Your task to perform on an android device: move a message to another label in the gmail app Image 0: 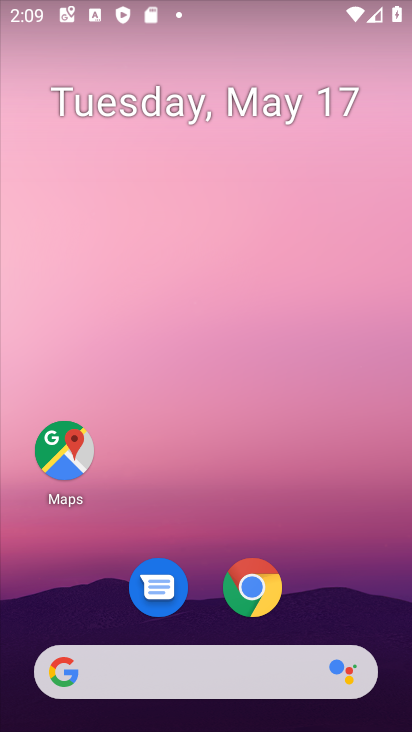
Step 0: drag from (112, 605) to (186, 85)
Your task to perform on an android device: move a message to another label in the gmail app Image 1: 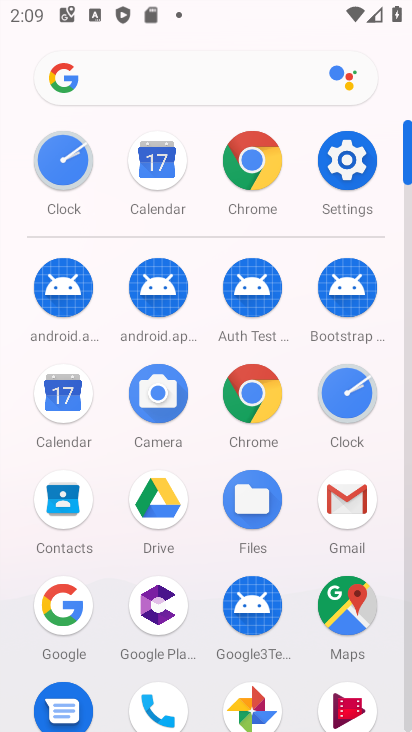
Step 1: click (337, 502)
Your task to perform on an android device: move a message to another label in the gmail app Image 2: 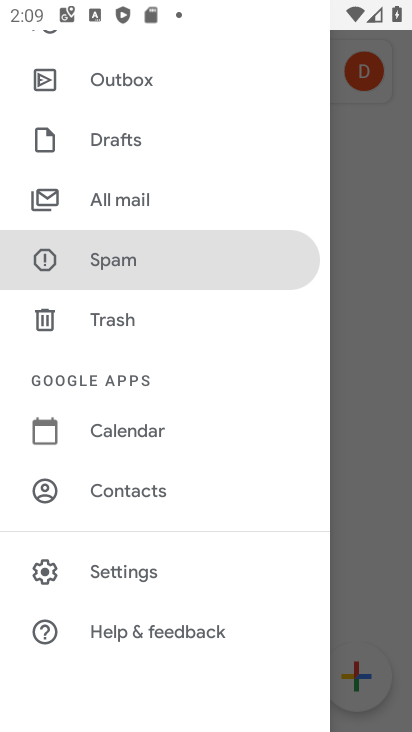
Step 2: drag from (176, 547) to (169, 95)
Your task to perform on an android device: move a message to another label in the gmail app Image 3: 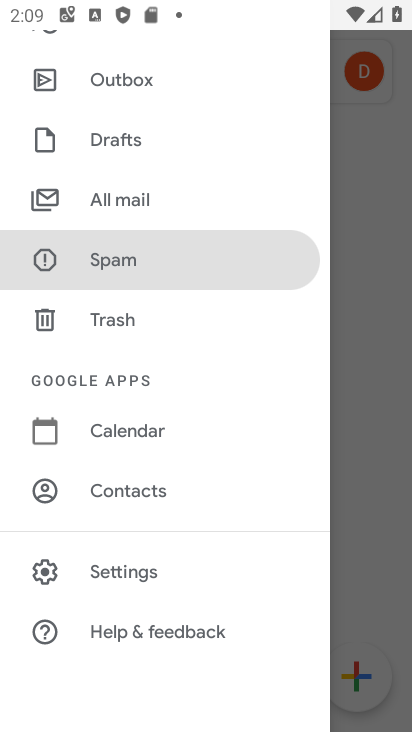
Step 3: click (102, 208)
Your task to perform on an android device: move a message to another label in the gmail app Image 4: 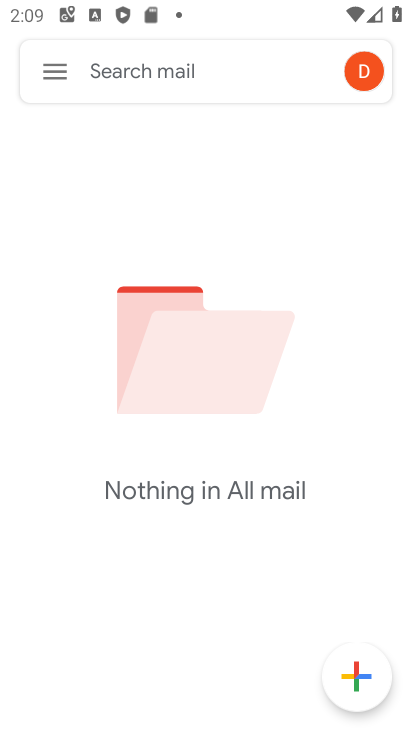
Step 4: task complete